Your task to perform on an android device: Open Google Image 0: 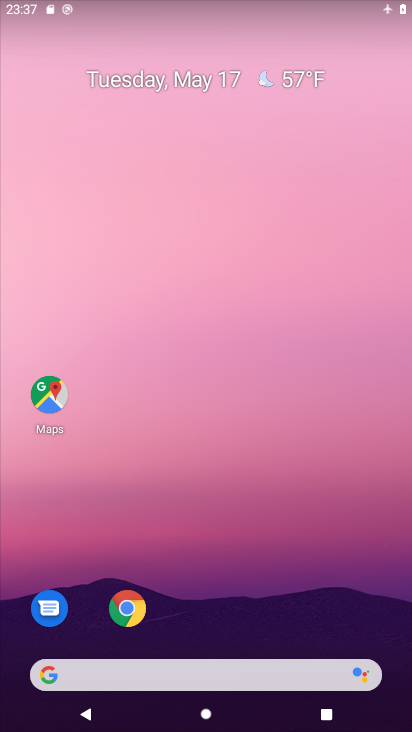
Step 0: click (156, 675)
Your task to perform on an android device: Open Google Image 1: 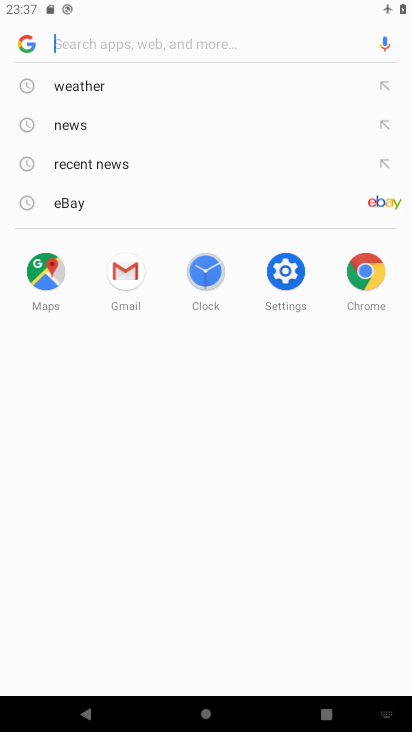
Step 1: click (21, 41)
Your task to perform on an android device: Open Google Image 2: 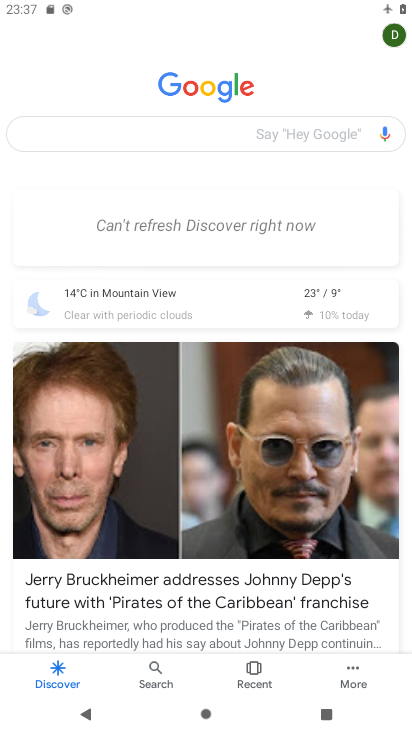
Step 2: task complete